Your task to perform on an android device: delete the emails in spam in the gmail app Image 0: 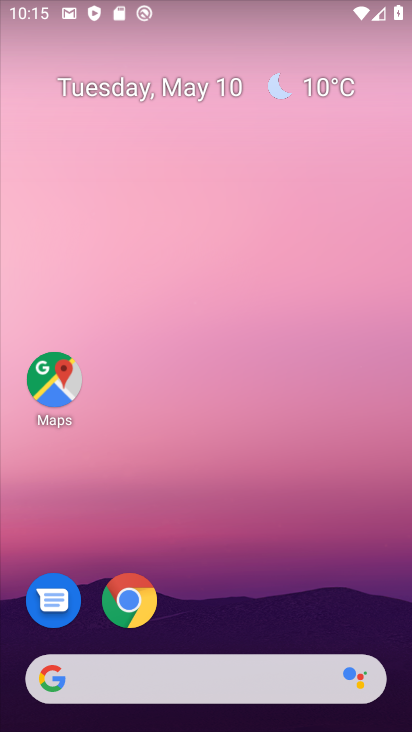
Step 0: drag from (252, 586) to (206, 78)
Your task to perform on an android device: delete the emails in spam in the gmail app Image 1: 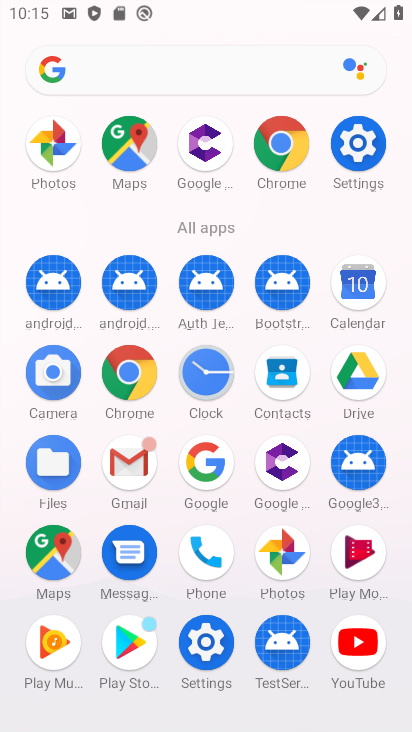
Step 1: click (143, 461)
Your task to perform on an android device: delete the emails in spam in the gmail app Image 2: 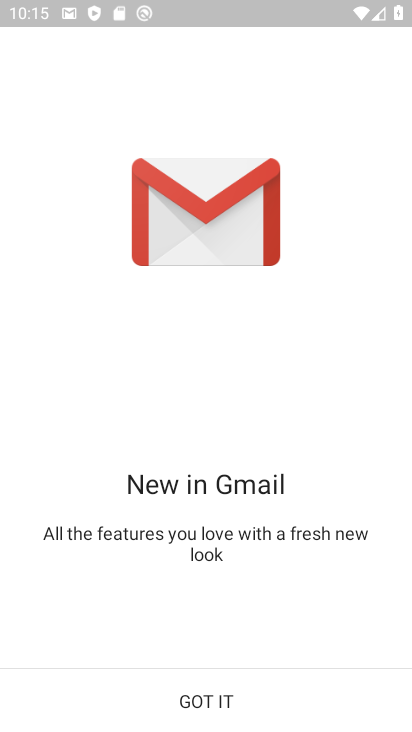
Step 2: click (202, 690)
Your task to perform on an android device: delete the emails in spam in the gmail app Image 3: 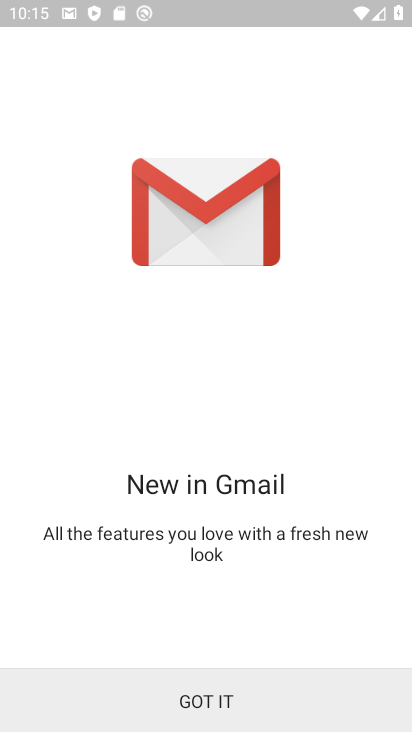
Step 3: click (202, 690)
Your task to perform on an android device: delete the emails in spam in the gmail app Image 4: 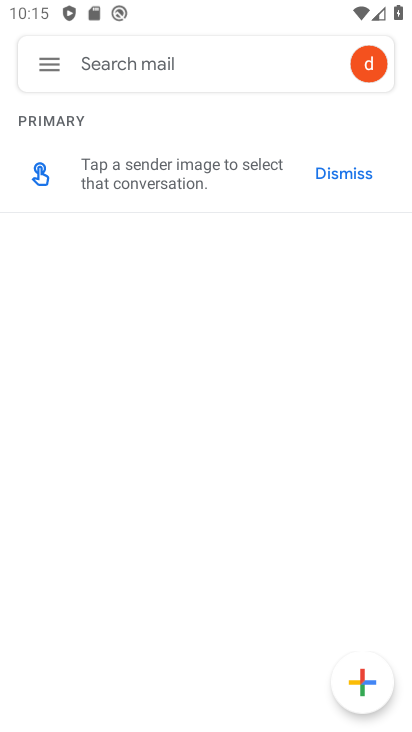
Step 4: click (55, 60)
Your task to perform on an android device: delete the emails in spam in the gmail app Image 5: 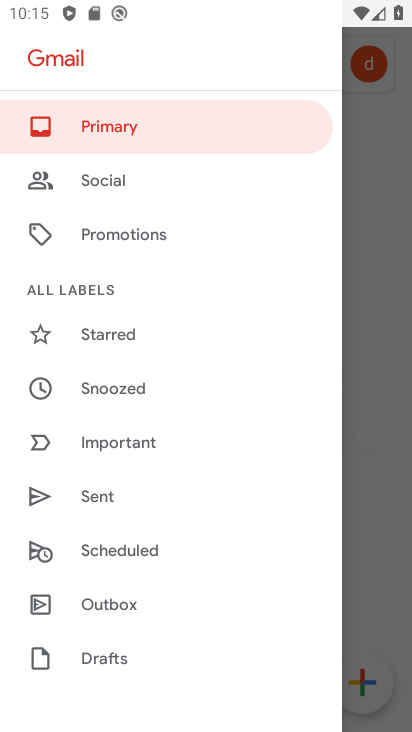
Step 5: drag from (219, 613) to (209, 107)
Your task to perform on an android device: delete the emails in spam in the gmail app Image 6: 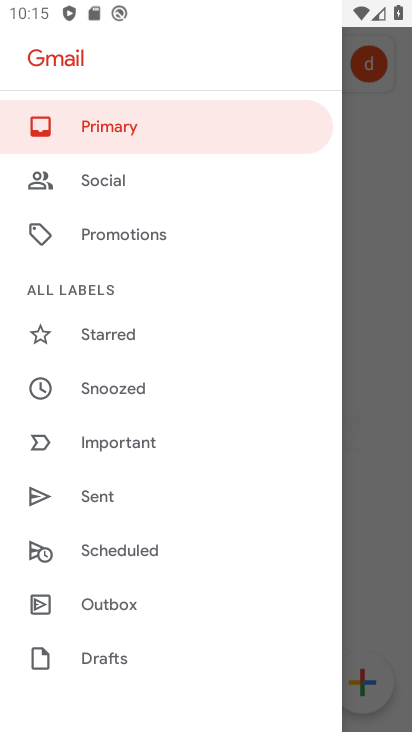
Step 6: drag from (164, 619) to (176, 181)
Your task to perform on an android device: delete the emails in spam in the gmail app Image 7: 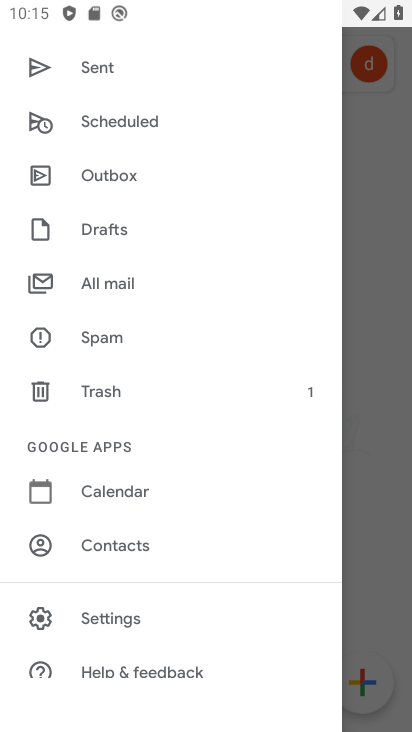
Step 7: click (137, 330)
Your task to perform on an android device: delete the emails in spam in the gmail app Image 8: 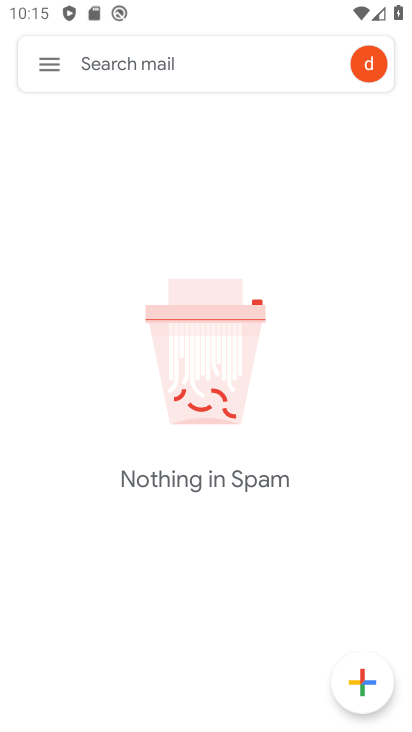
Step 8: task complete